Your task to perform on an android device: change your default location settings in chrome Image 0: 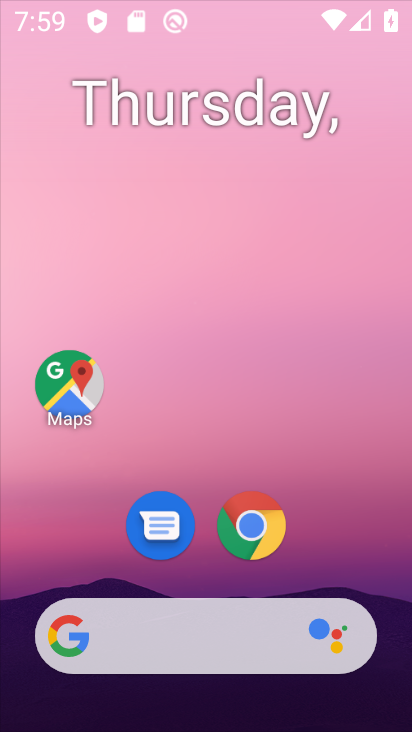
Step 0: press home button
Your task to perform on an android device: change your default location settings in chrome Image 1: 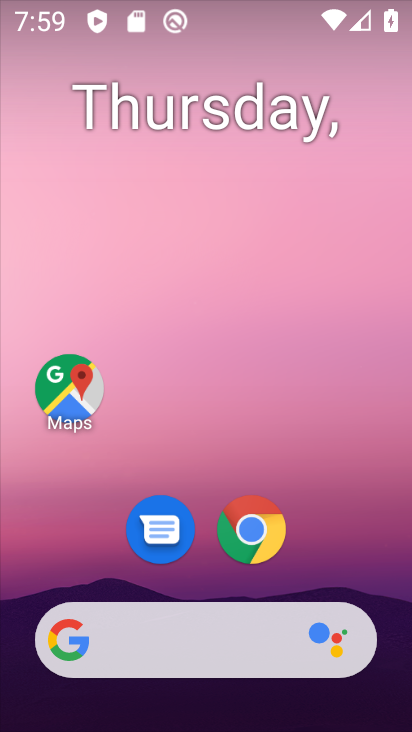
Step 1: click (260, 541)
Your task to perform on an android device: change your default location settings in chrome Image 2: 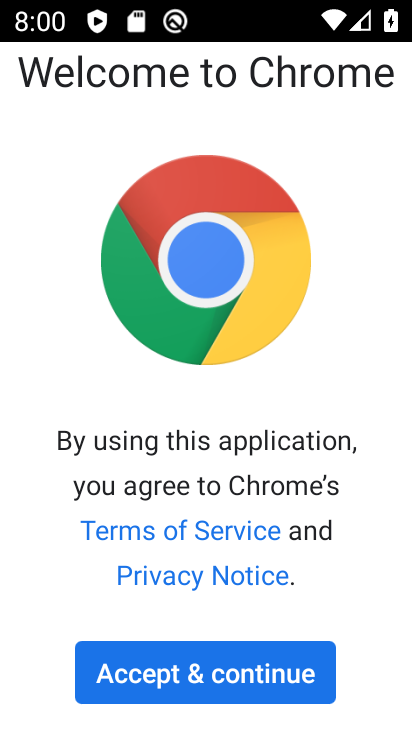
Step 2: click (199, 665)
Your task to perform on an android device: change your default location settings in chrome Image 3: 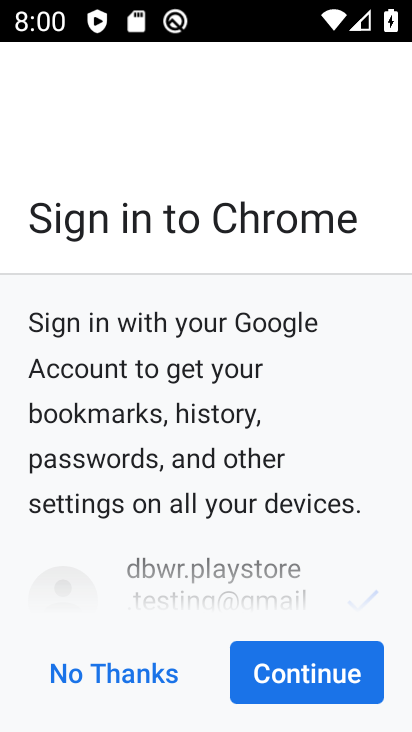
Step 3: click (279, 673)
Your task to perform on an android device: change your default location settings in chrome Image 4: 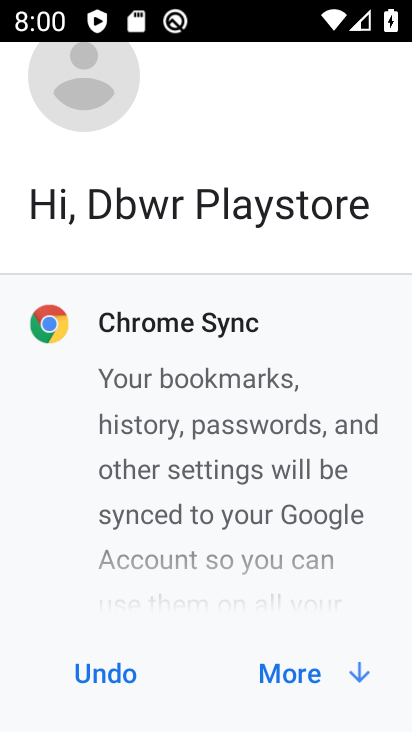
Step 4: click (281, 674)
Your task to perform on an android device: change your default location settings in chrome Image 5: 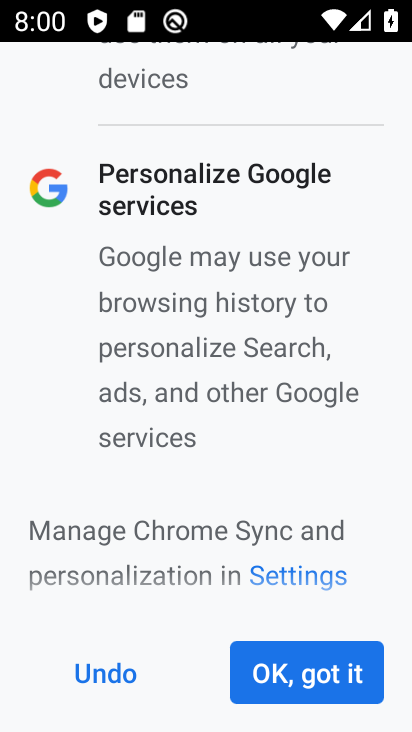
Step 5: click (290, 662)
Your task to perform on an android device: change your default location settings in chrome Image 6: 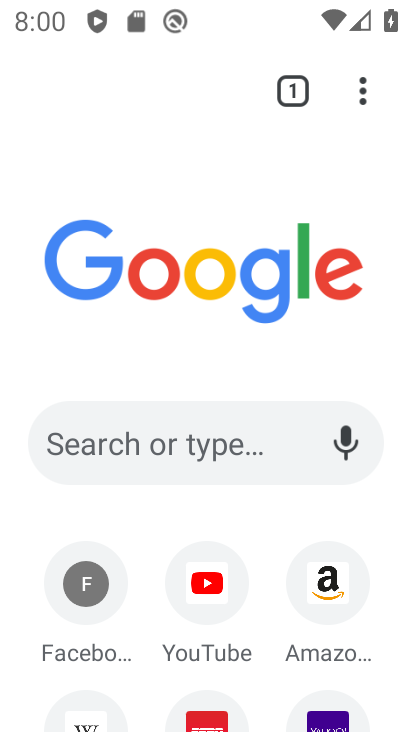
Step 6: drag from (362, 91) to (218, 558)
Your task to perform on an android device: change your default location settings in chrome Image 7: 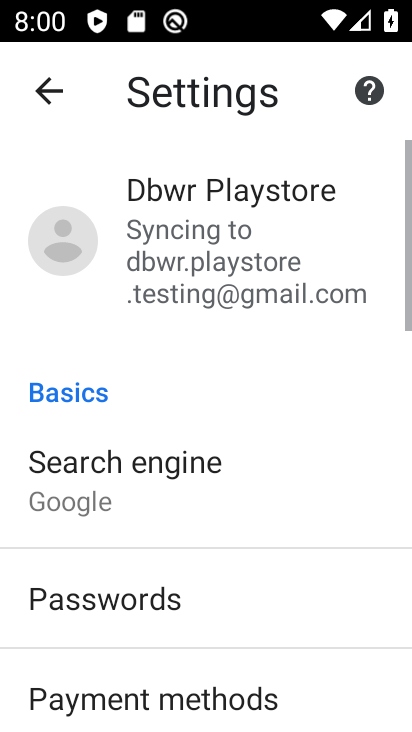
Step 7: drag from (237, 621) to (377, 140)
Your task to perform on an android device: change your default location settings in chrome Image 8: 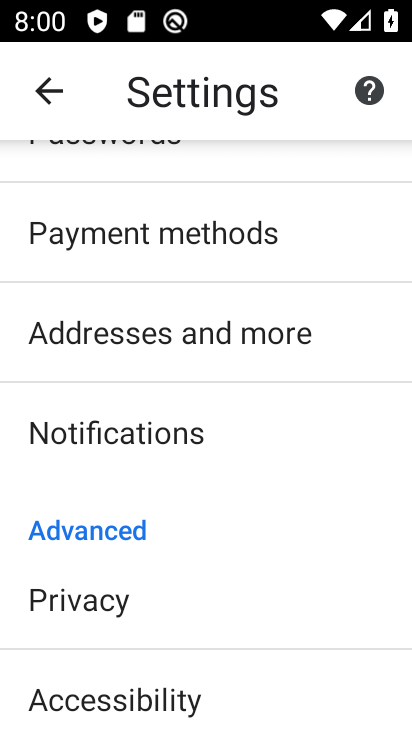
Step 8: drag from (245, 482) to (366, 114)
Your task to perform on an android device: change your default location settings in chrome Image 9: 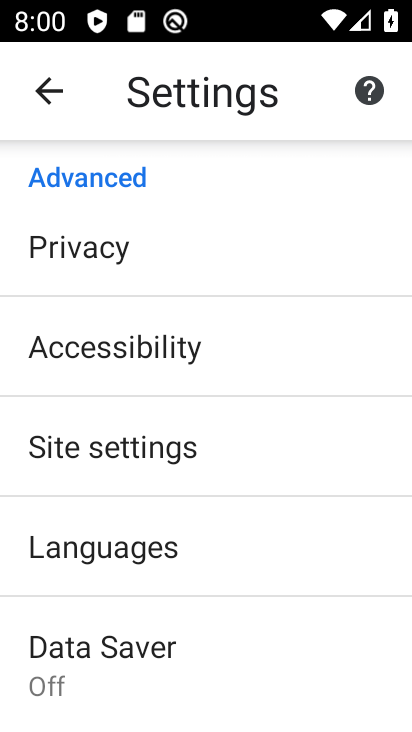
Step 9: click (139, 459)
Your task to perform on an android device: change your default location settings in chrome Image 10: 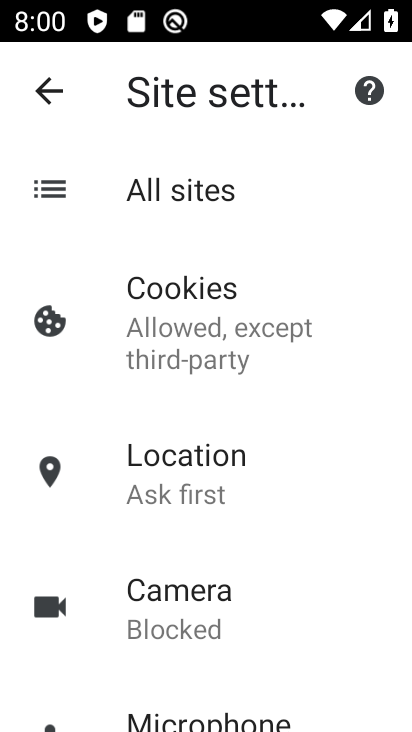
Step 10: click (200, 478)
Your task to perform on an android device: change your default location settings in chrome Image 11: 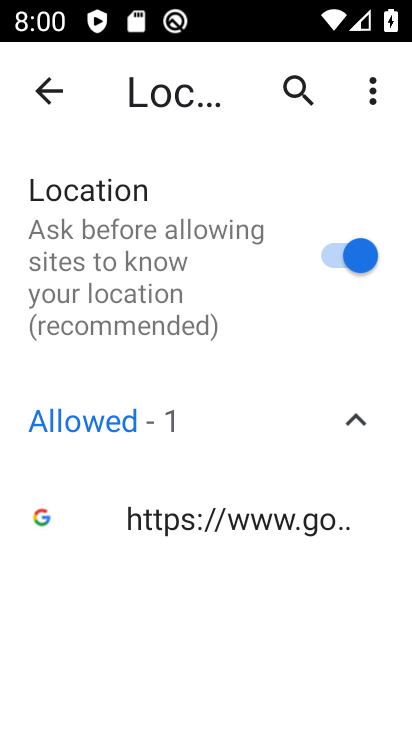
Step 11: task complete